Your task to perform on an android device: Find coffee shops on Maps Image 0: 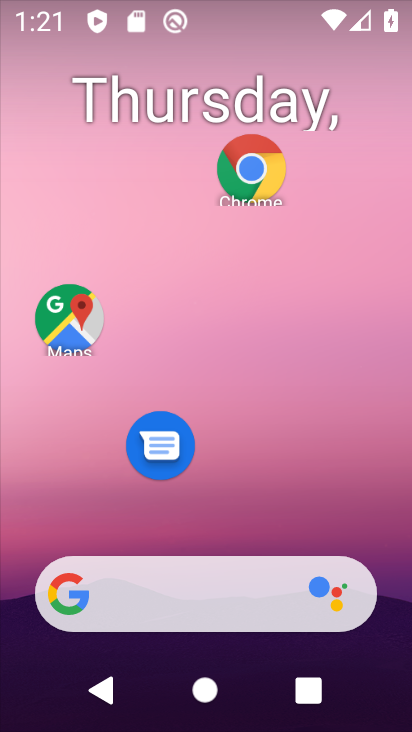
Step 0: drag from (291, 629) to (280, 175)
Your task to perform on an android device: Find coffee shops on Maps Image 1: 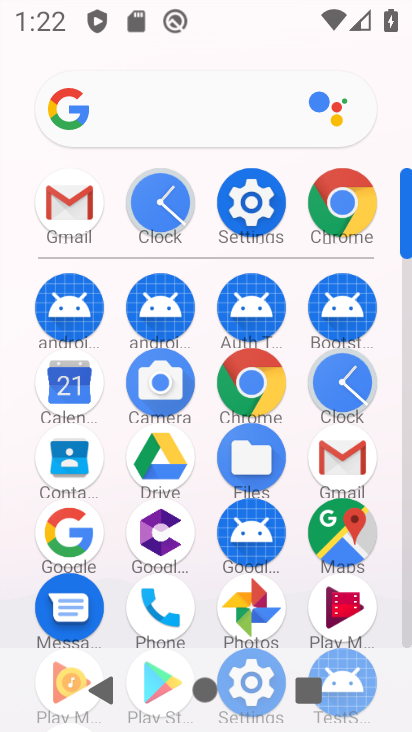
Step 1: click (336, 548)
Your task to perform on an android device: Find coffee shops on Maps Image 2: 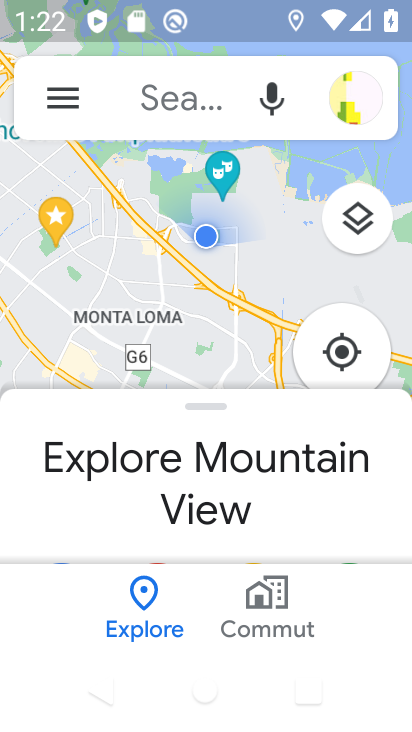
Step 2: click (185, 97)
Your task to perform on an android device: Find coffee shops on Maps Image 3: 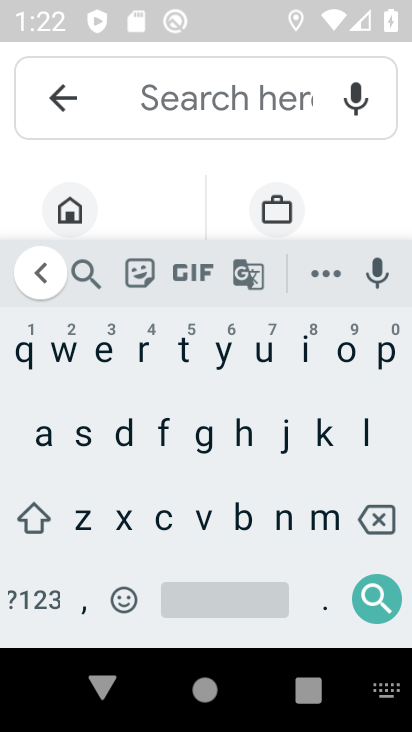
Step 3: click (161, 525)
Your task to perform on an android device: Find coffee shops on Maps Image 4: 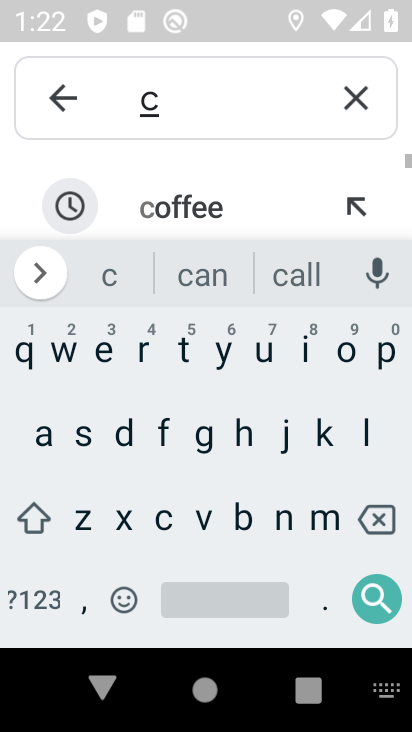
Step 4: click (161, 192)
Your task to perform on an android device: Find coffee shops on Maps Image 5: 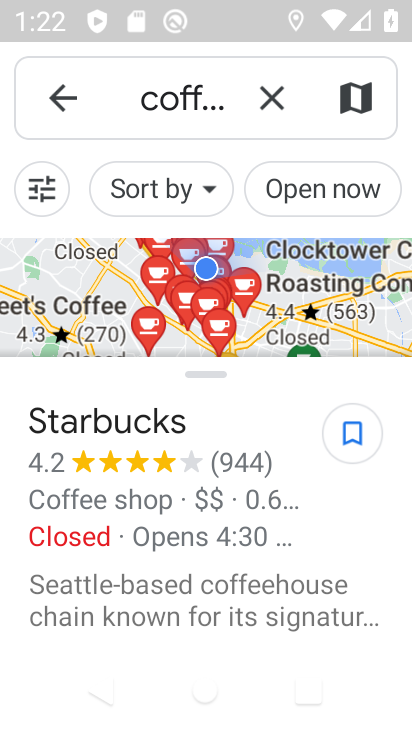
Step 5: click (108, 271)
Your task to perform on an android device: Find coffee shops on Maps Image 6: 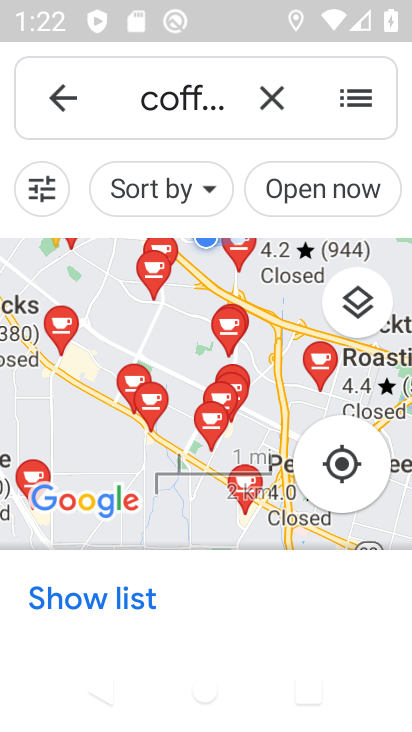
Step 6: task complete